Your task to perform on an android device: change the clock display to show seconds Image 0: 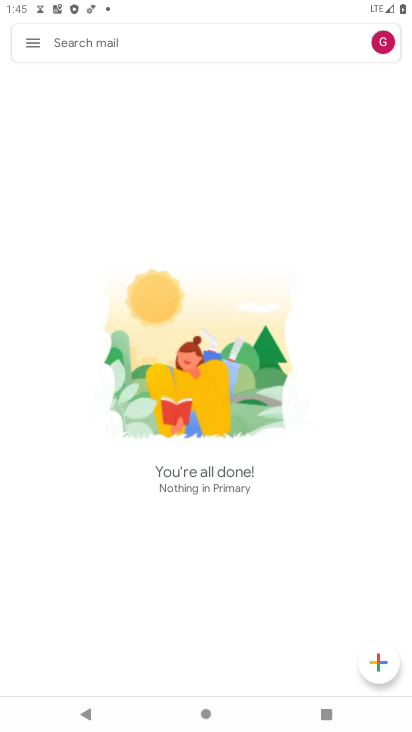
Step 0: press home button
Your task to perform on an android device: change the clock display to show seconds Image 1: 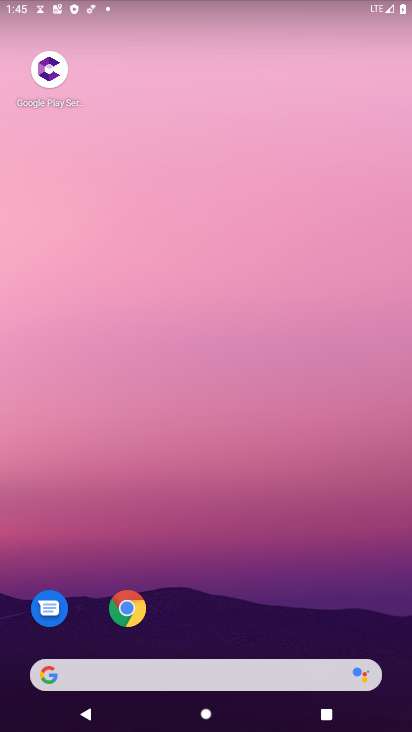
Step 1: drag from (266, 597) to (208, 157)
Your task to perform on an android device: change the clock display to show seconds Image 2: 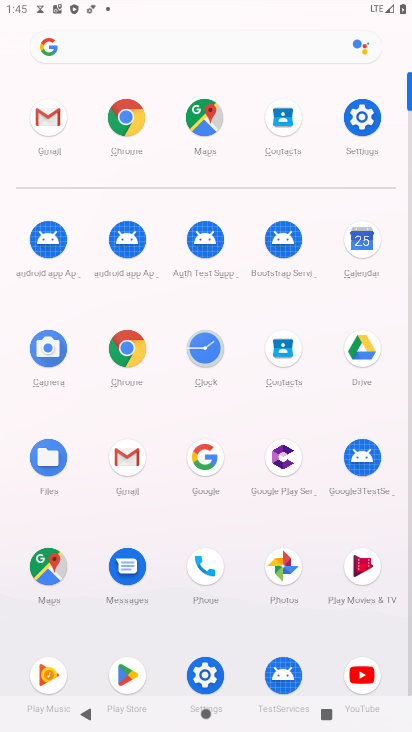
Step 2: click (210, 354)
Your task to perform on an android device: change the clock display to show seconds Image 3: 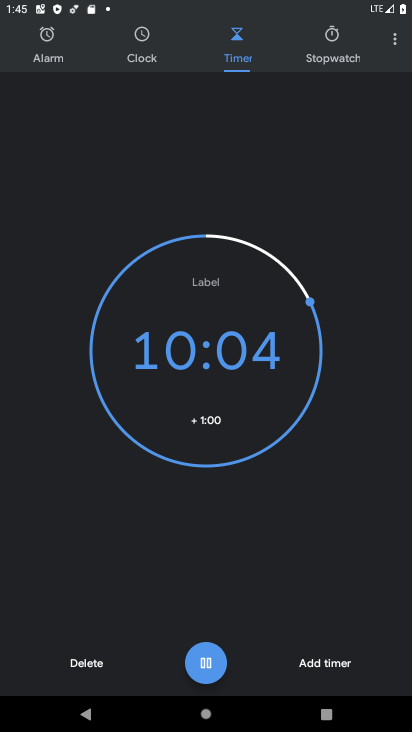
Step 3: click (398, 37)
Your task to perform on an android device: change the clock display to show seconds Image 4: 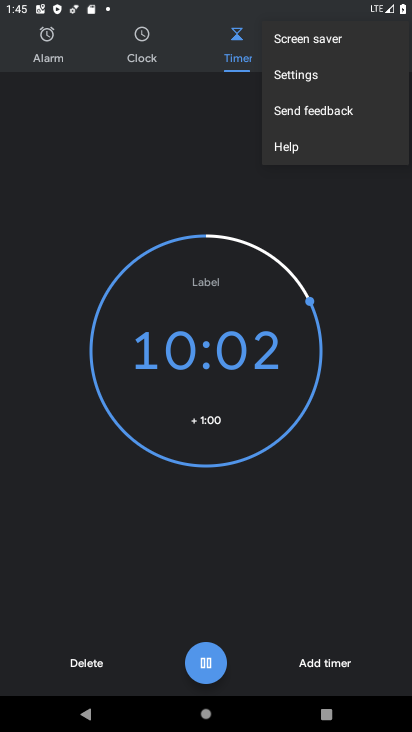
Step 4: click (309, 74)
Your task to perform on an android device: change the clock display to show seconds Image 5: 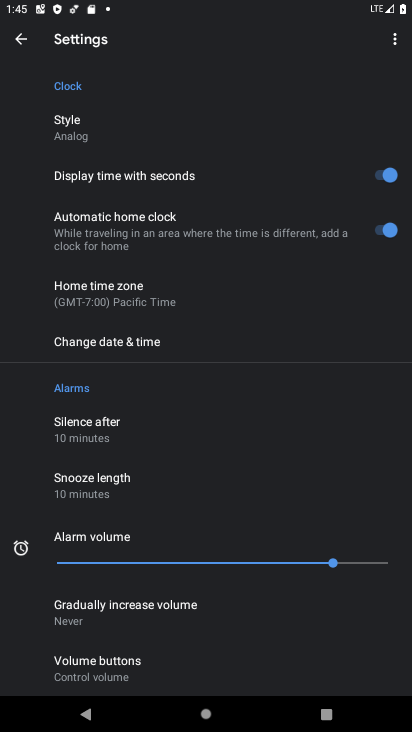
Step 5: task complete